Your task to perform on an android device: Go to Maps Image 0: 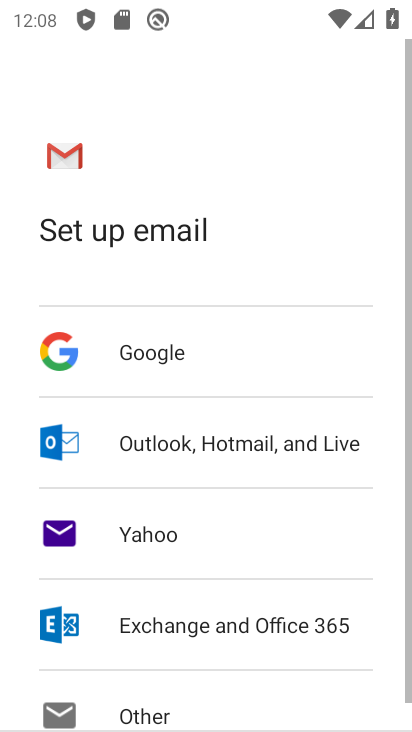
Step 0: press home button
Your task to perform on an android device: Go to Maps Image 1: 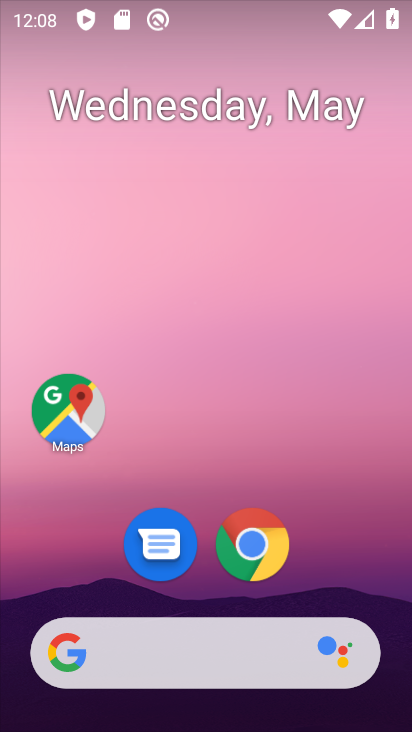
Step 1: click (85, 412)
Your task to perform on an android device: Go to Maps Image 2: 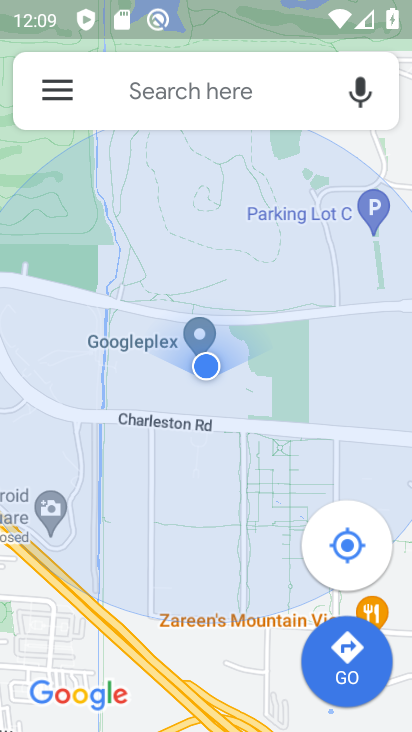
Step 2: task complete